Your task to perform on an android device: check out phone information Image 0: 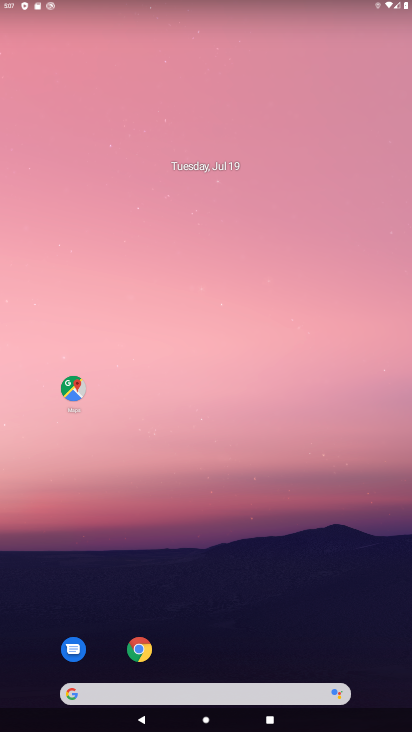
Step 0: drag from (253, 572) to (206, 9)
Your task to perform on an android device: check out phone information Image 1: 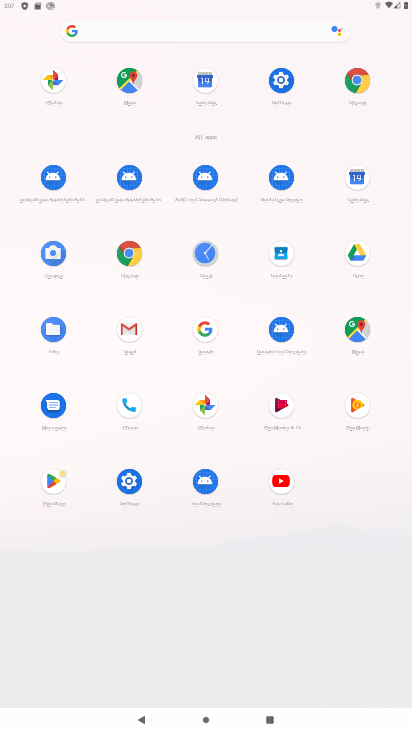
Step 1: click (123, 404)
Your task to perform on an android device: check out phone information Image 2: 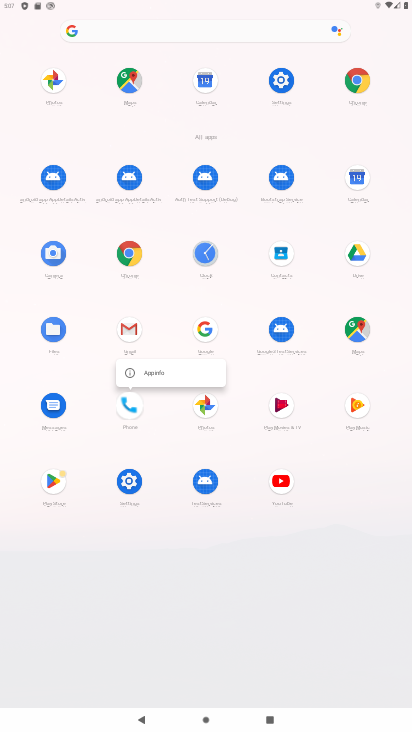
Step 2: click (145, 367)
Your task to perform on an android device: check out phone information Image 3: 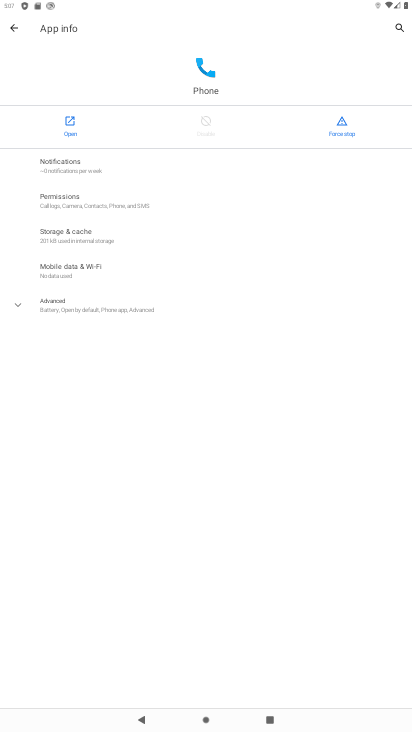
Step 3: click (112, 317)
Your task to perform on an android device: check out phone information Image 4: 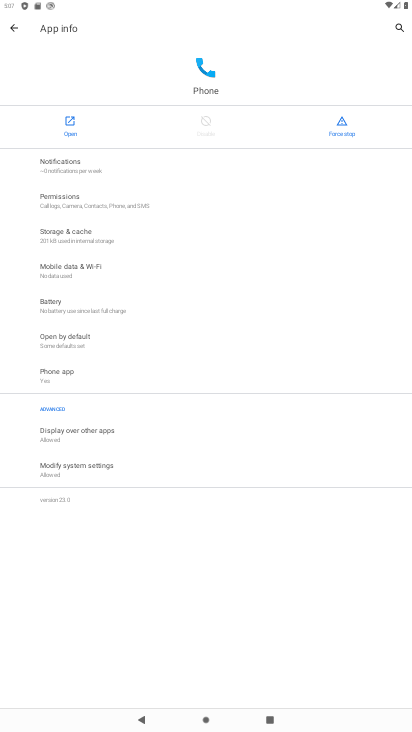
Step 4: task complete